Your task to perform on an android device: Open ESPN.com Image 0: 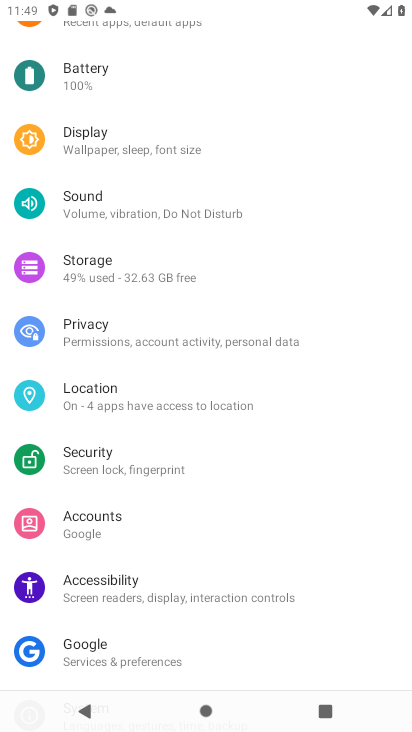
Step 0: press home button
Your task to perform on an android device: Open ESPN.com Image 1: 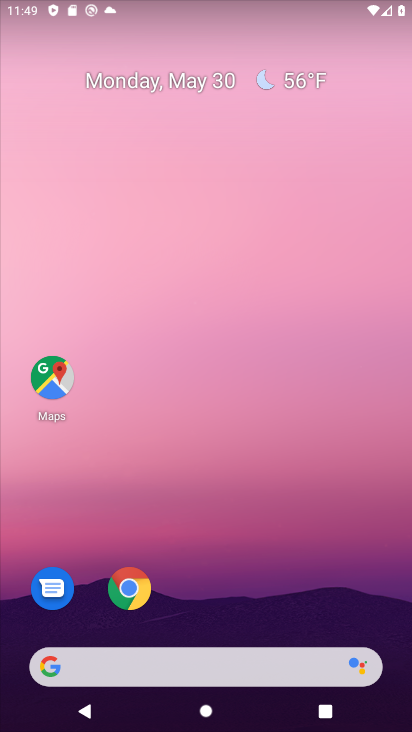
Step 1: click (129, 602)
Your task to perform on an android device: Open ESPN.com Image 2: 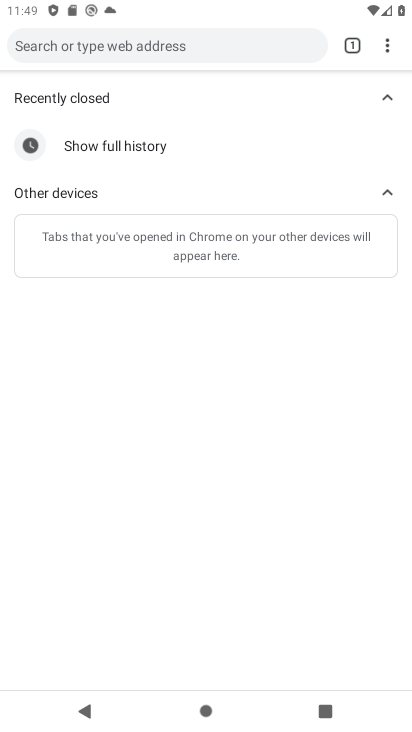
Step 2: click (354, 52)
Your task to perform on an android device: Open ESPN.com Image 3: 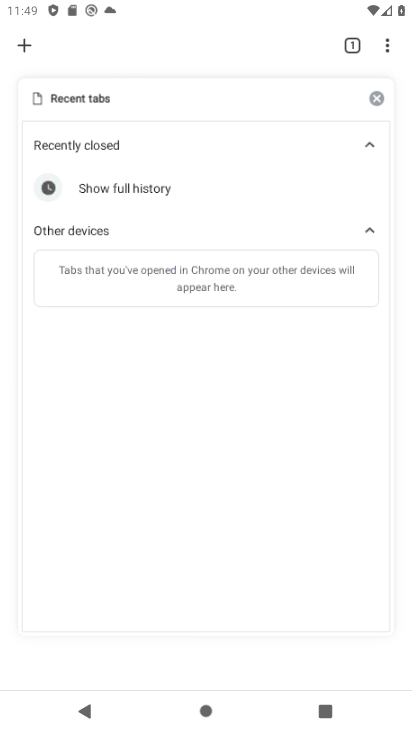
Step 3: click (17, 45)
Your task to perform on an android device: Open ESPN.com Image 4: 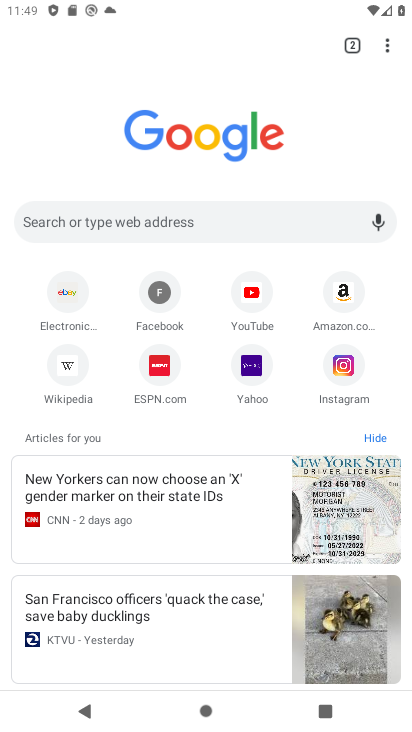
Step 4: click (157, 379)
Your task to perform on an android device: Open ESPN.com Image 5: 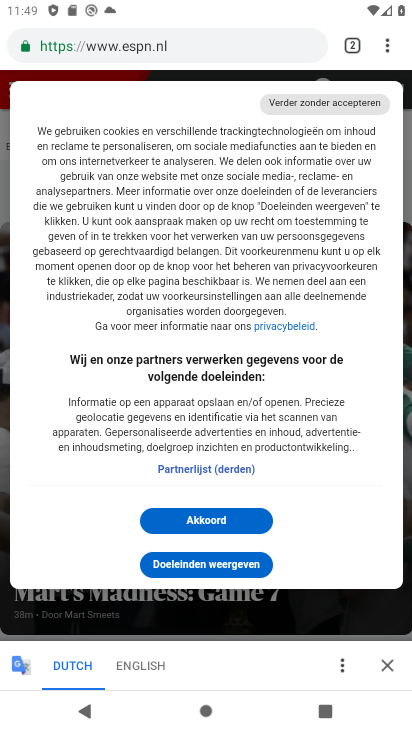
Step 5: task complete